Your task to perform on an android device: Go to eBay Image 0: 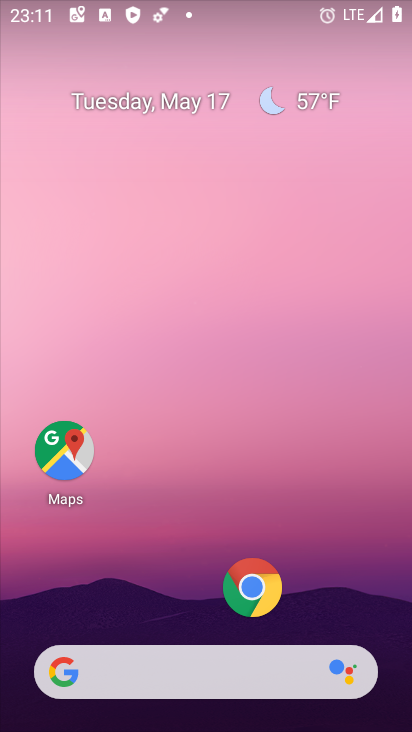
Step 0: click (249, 587)
Your task to perform on an android device: Go to eBay Image 1: 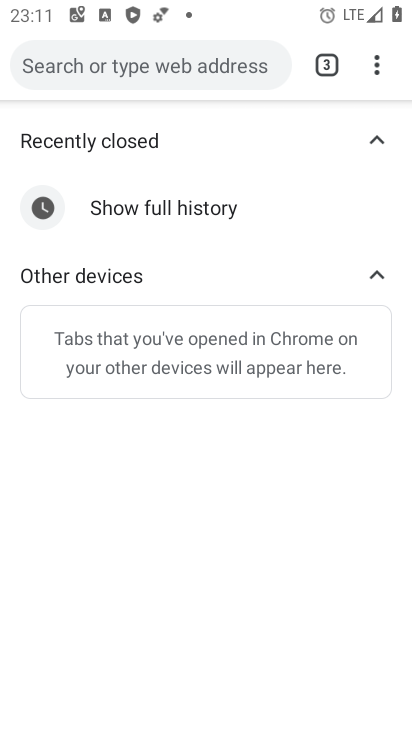
Step 1: click (319, 72)
Your task to perform on an android device: Go to eBay Image 2: 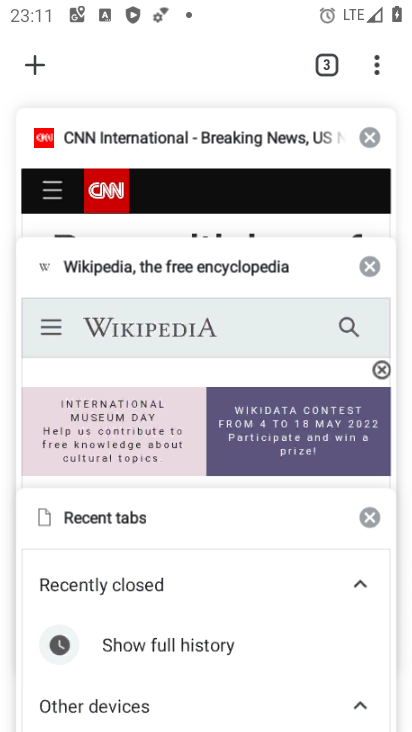
Step 2: click (374, 145)
Your task to perform on an android device: Go to eBay Image 3: 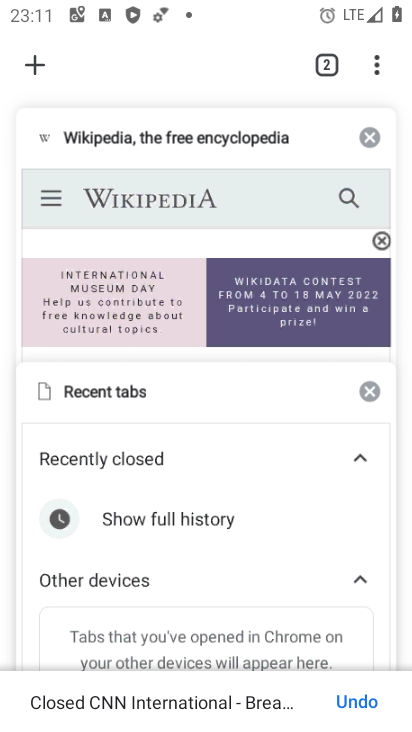
Step 3: click (374, 143)
Your task to perform on an android device: Go to eBay Image 4: 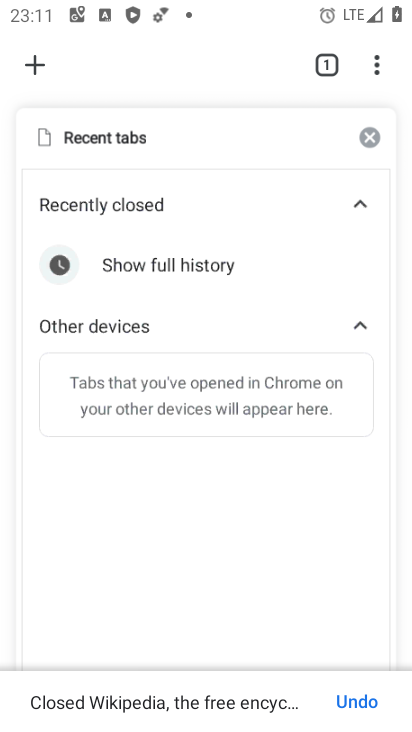
Step 4: click (374, 138)
Your task to perform on an android device: Go to eBay Image 5: 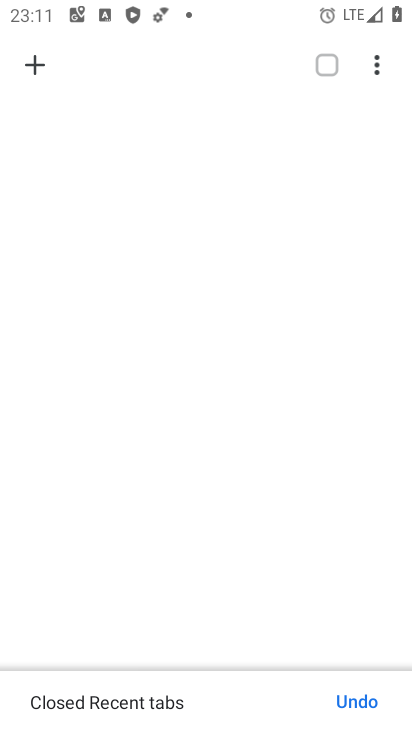
Step 5: click (25, 63)
Your task to perform on an android device: Go to eBay Image 6: 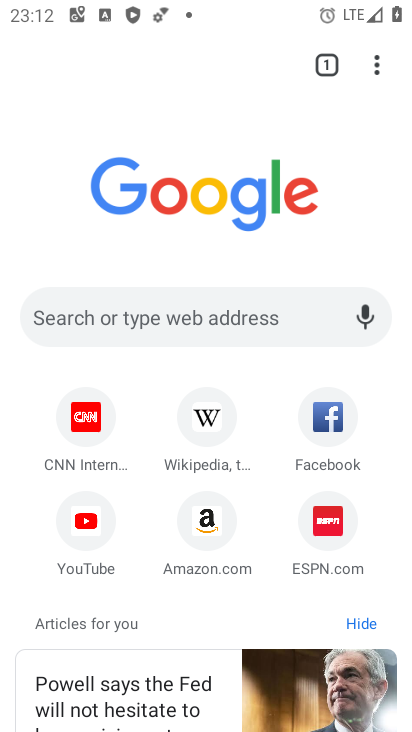
Step 6: click (144, 326)
Your task to perform on an android device: Go to eBay Image 7: 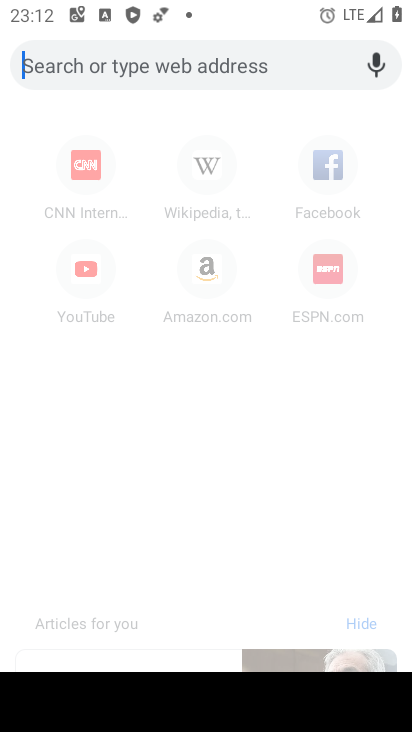
Step 7: type "eBay"
Your task to perform on an android device: Go to eBay Image 8: 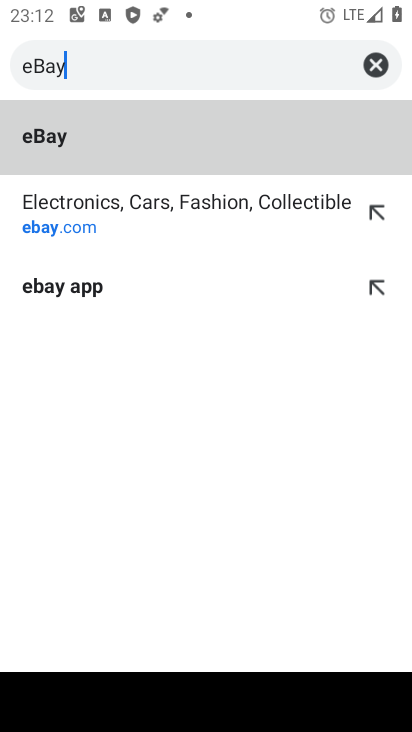
Step 8: type ""
Your task to perform on an android device: Go to eBay Image 9: 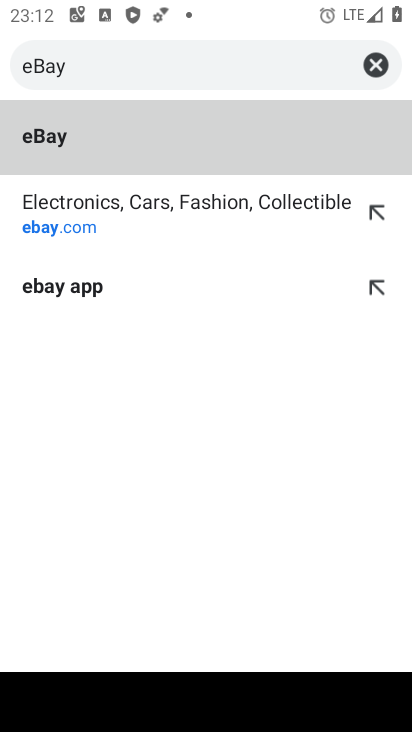
Step 9: click (114, 162)
Your task to perform on an android device: Go to eBay Image 10: 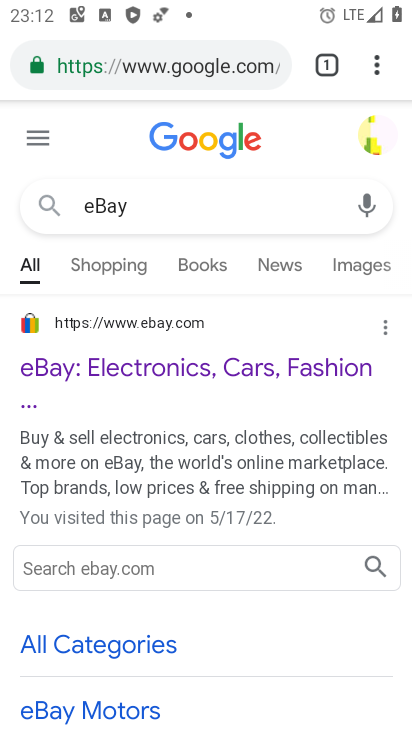
Step 10: click (170, 374)
Your task to perform on an android device: Go to eBay Image 11: 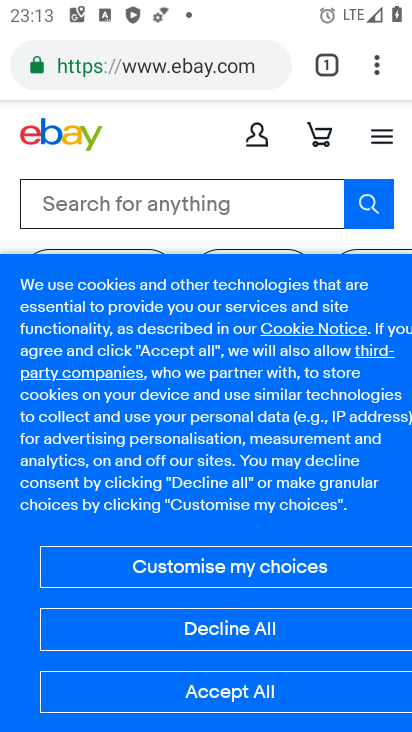
Step 11: task complete